Your task to perform on an android device: Go to ESPN.com Image 0: 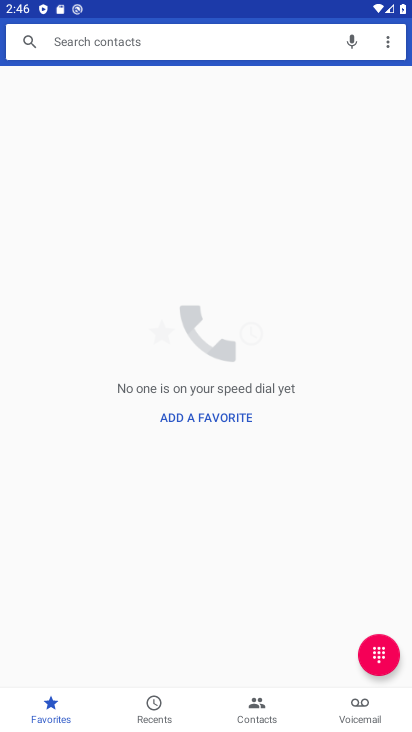
Step 0: press home button
Your task to perform on an android device: Go to ESPN.com Image 1: 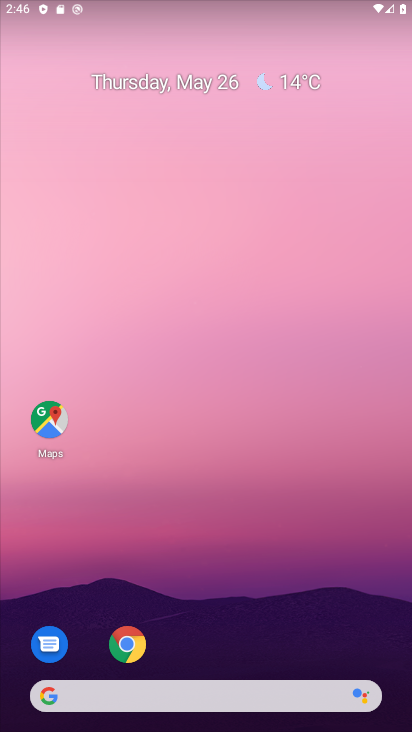
Step 1: drag from (342, 585) to (268, 129)
Your task to perform on an android device: Go to ESPN.com Image 2: 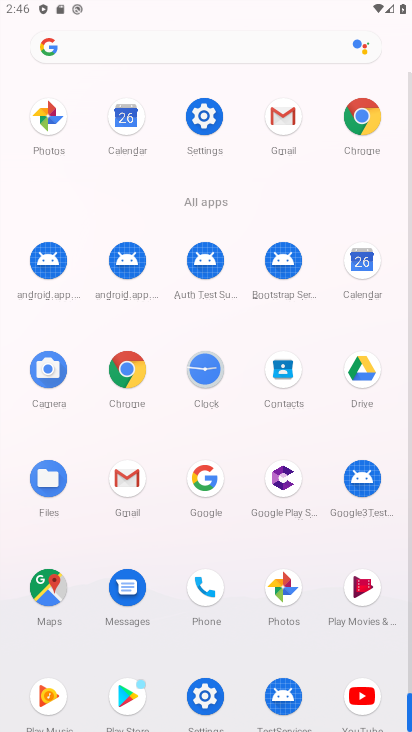
Step 2: click (129, 388)
Your task to perform on an android device: Go to ESPN.com Image 3: 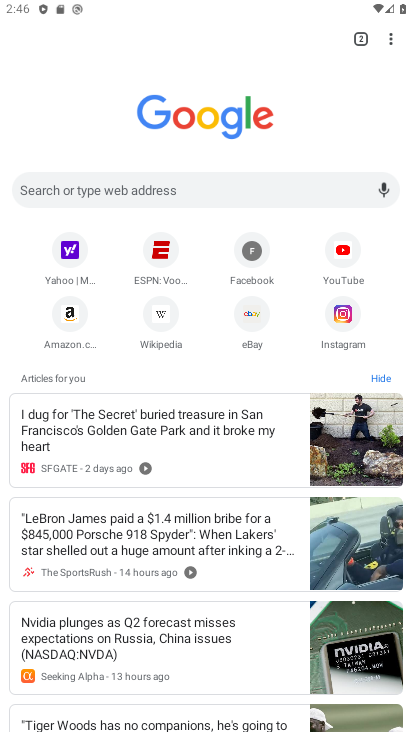
Step 3: click (204, 187)
Your task to perform on an android device: Go to ESPN.com Image 4: 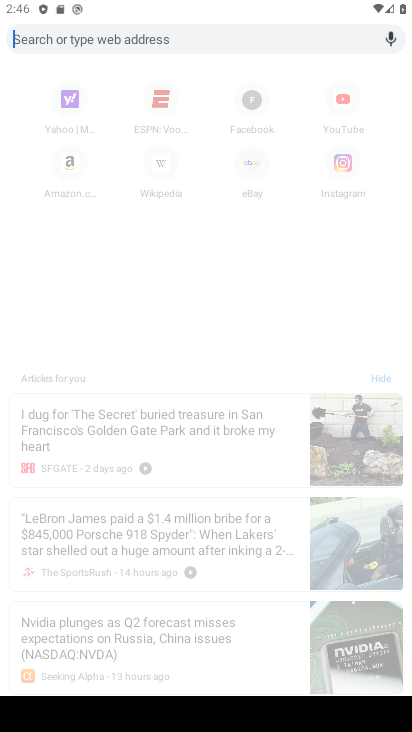
Step 4: type "espn.com"
Your task to perform on an android device: Go to ESPN.com Image 5: 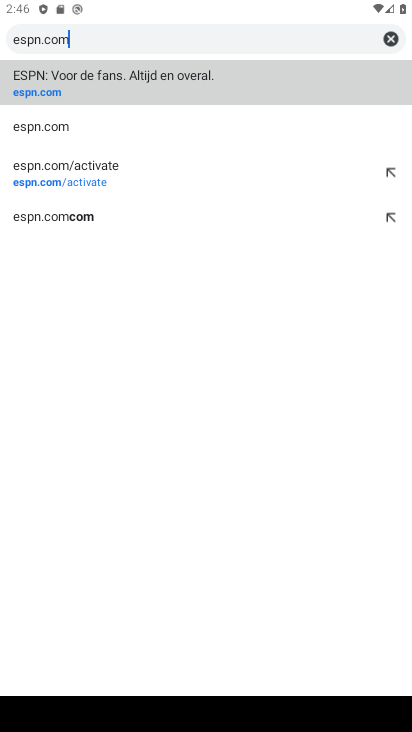
Step 5: click (47, 69)
Your task to perform on an android device: Go to ESPN.com Image 6: 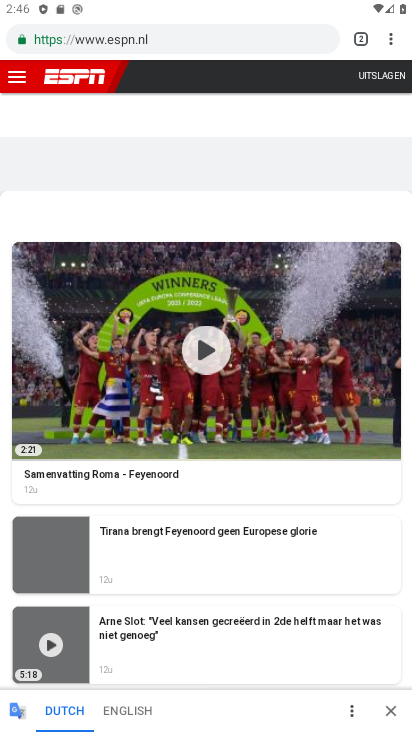
Step 6: task complete